Your task to perform on an android device: Open the stopwatch Image 0: 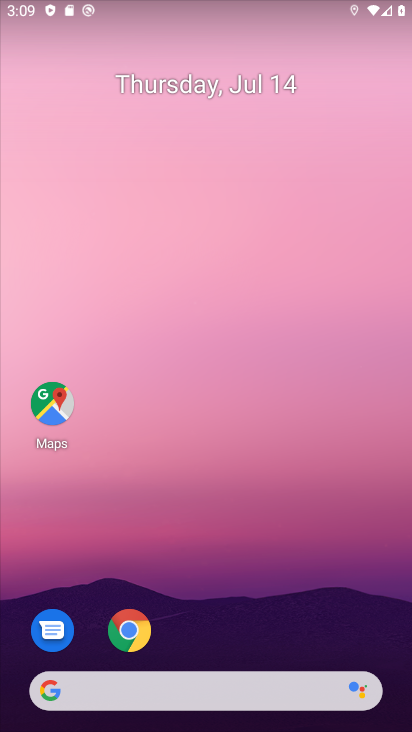
Step 0: drag from (343, 626) to (224, 9)
Your task to perform on an android device: Open the stopwatch Image 1: 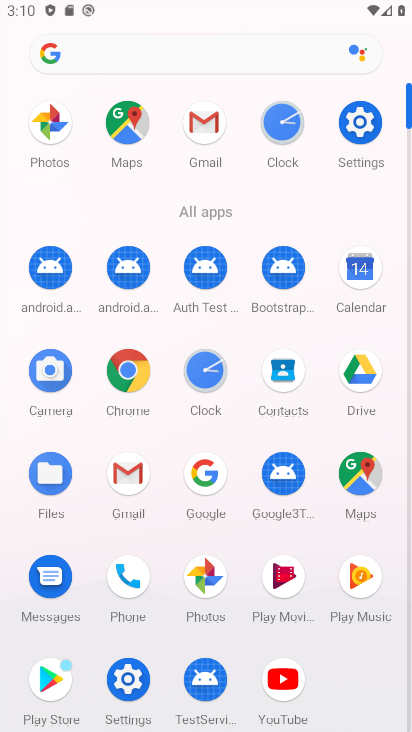
Step 1: click (196, 369)
Your task to perform on an android device: Open the stopwatch Image 2: 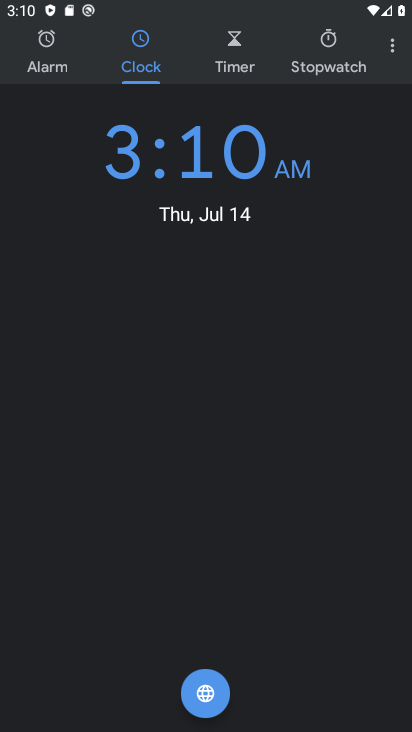
Step 2: click (337, 40)
Your task to perform on an android device: Open the stopwatch Image 3: 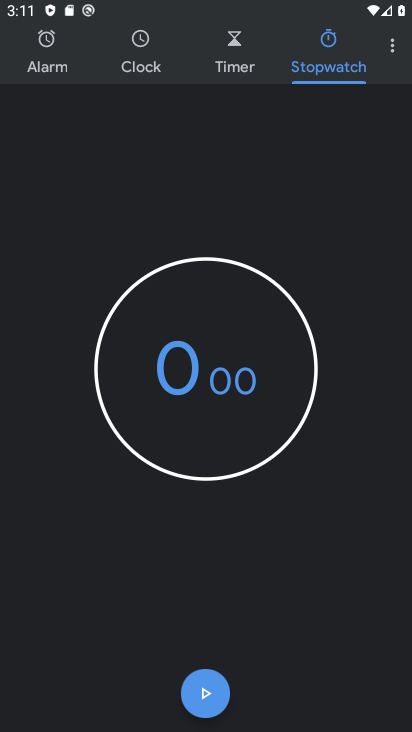
Step 3: task complete